Your task to perform on an android device: turn off location history Image 0: 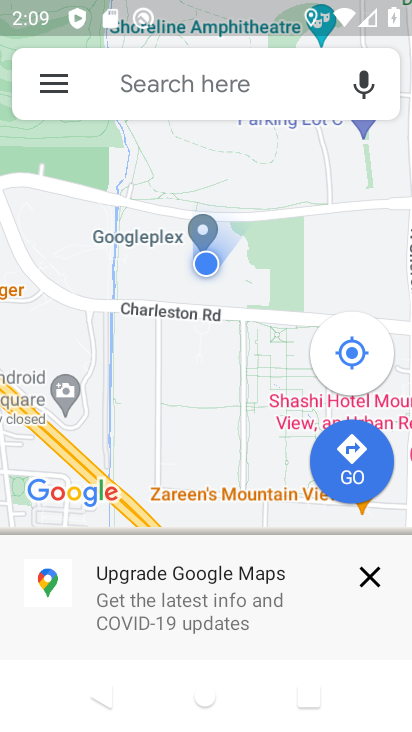
Step 0: press back button
Your task to perform on an android device: turn off location history Image 1: 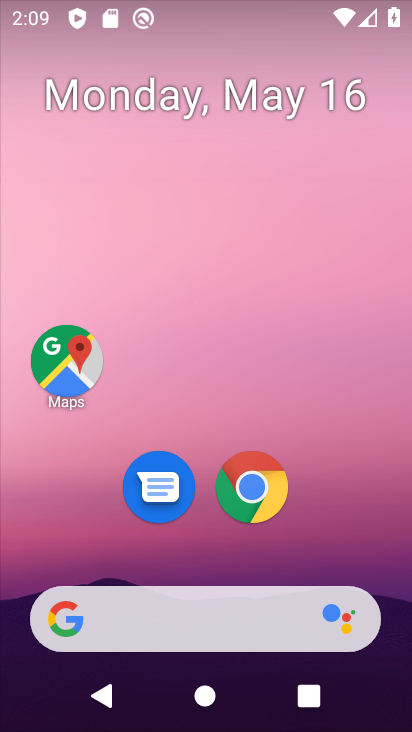
Step 1: drag from (302, 544) to (302, 53)
Your task to perform on an android device: turn off location history Image 2: 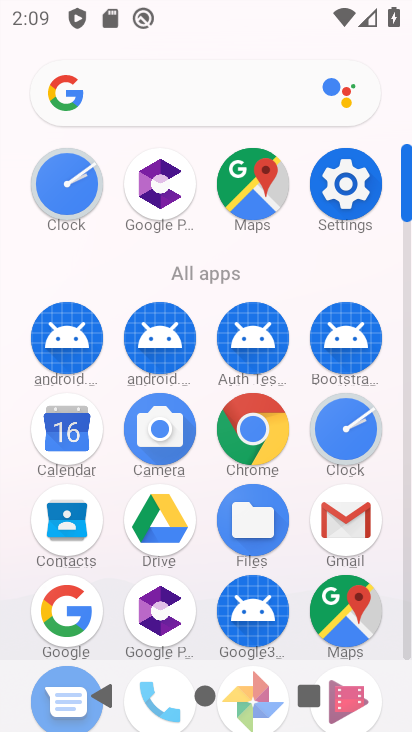
Step 2: click (345, 185)
Your task to perform on an android device: turn off location history Image 3: 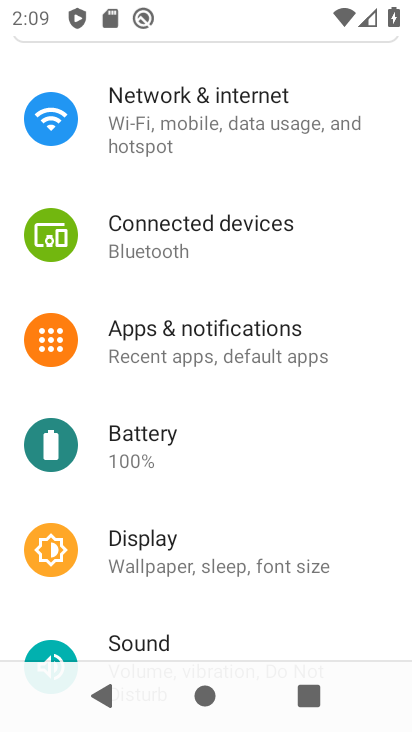
Step 3: drag from (203, 391) to (250, 293)
Your task to perform on an android device: turn off location history Image 4: 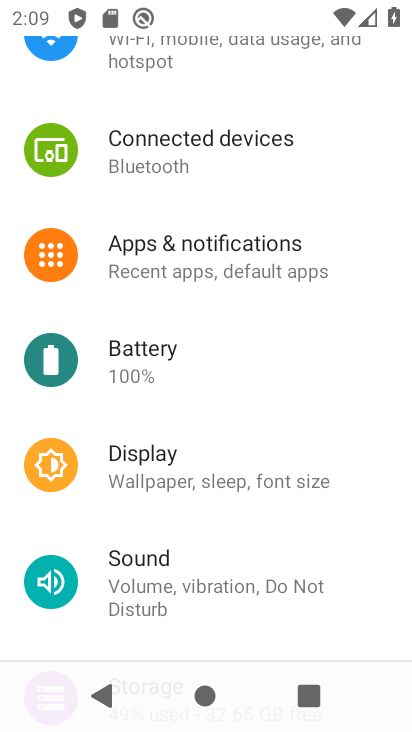
Step 4: drag from (189, 486) to (253, 400)
Your task to perform on an android device: turn off location history Image 5: 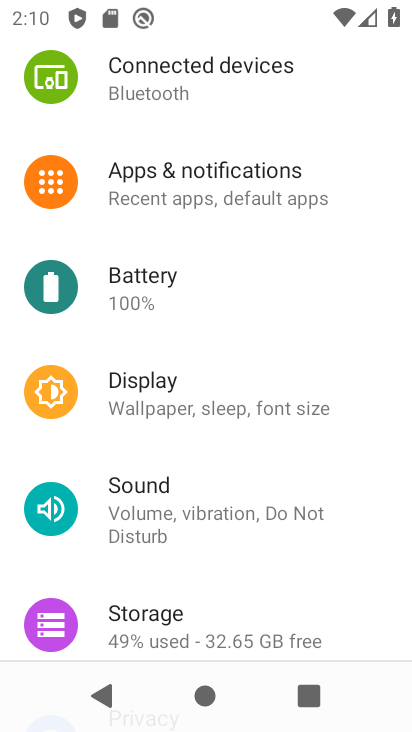
Step 5: drag from (201, 527) to (244, 444)
Your task to perform on an android device: turn off location history Image 6: 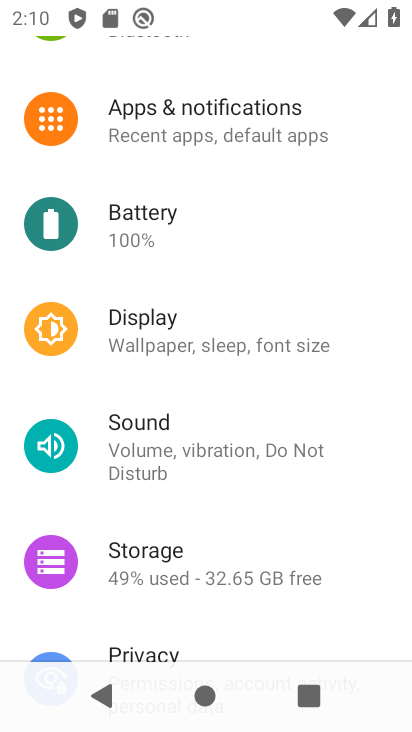
Step 6: drag from (169, 531) to (264, 398)
Your task to perform on an android device: turn off location history Image 7: 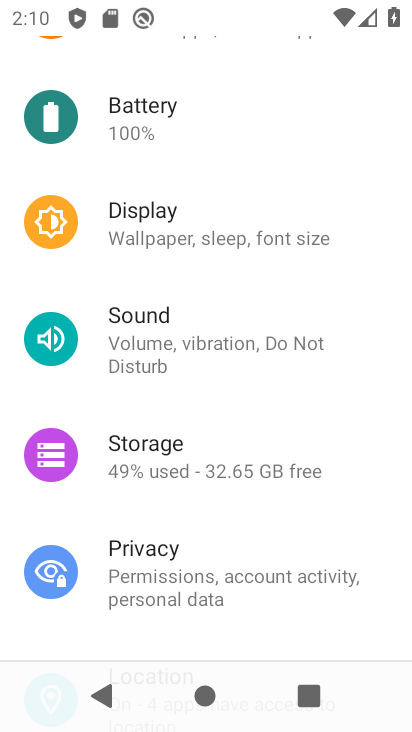
Step 7: drag from (184, 522) to (263, 408)
Your task to perform on an android device: turn off location history Image 8: 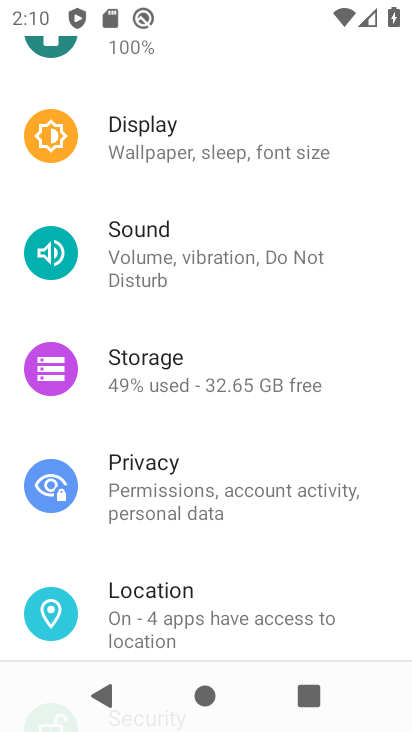
Step 8: drag from (187, 540) to (283, 412)
Your task to perform on an android device: turn off location history Image 9: 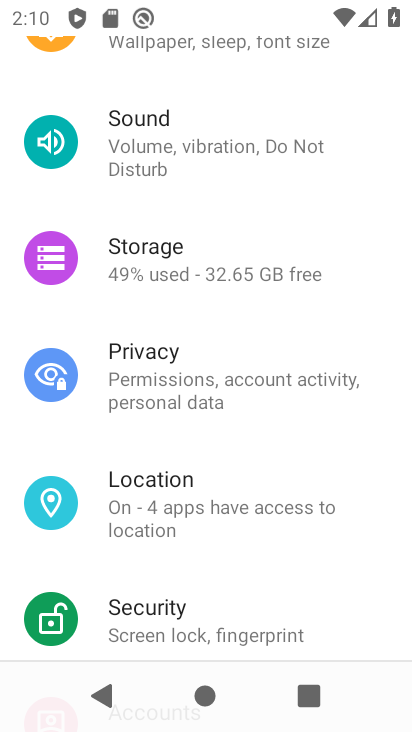
Step 9: click (136, 498)
Your task to perform on an android device: turn off location history Image 10: 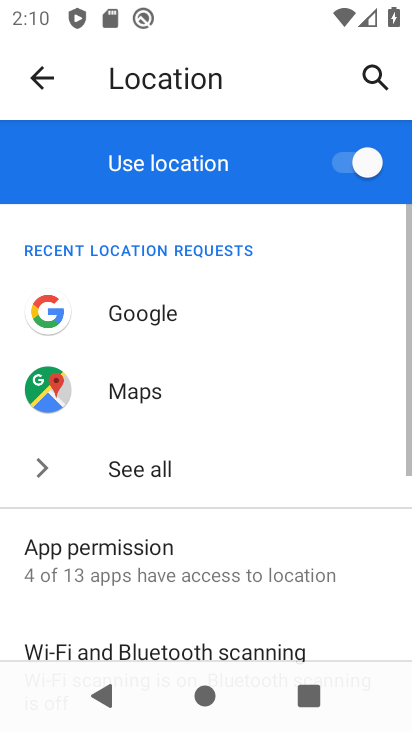
Step 10: drag from (158, 589) to (242, 453)
Your task to perform on an android device: turn off location history Image 11: 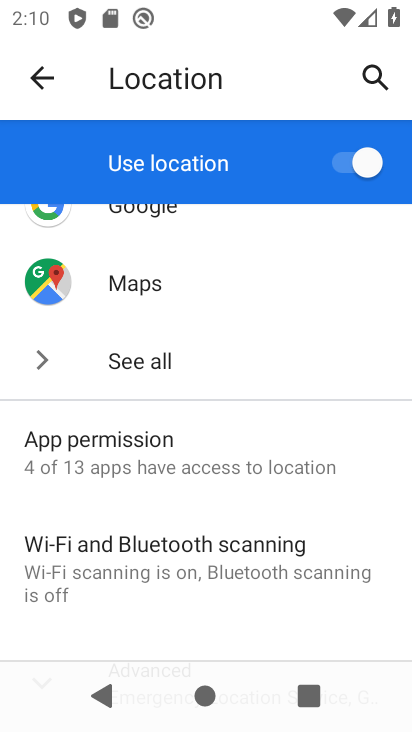
Step 11: drag from (178, 594) to (275, 411)
Your task to perform on an android device: turn off location history Image 12: 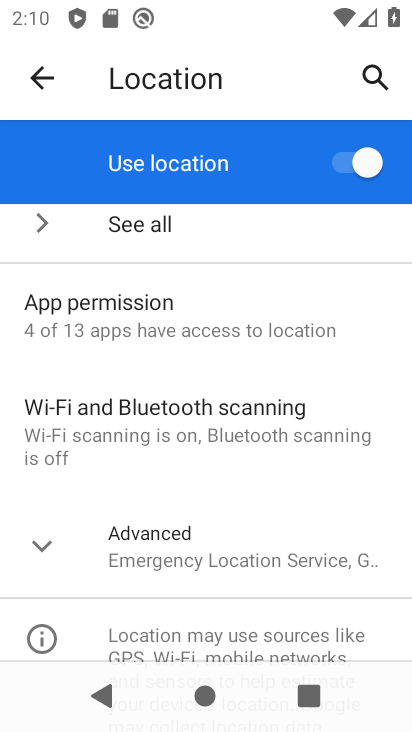
Step 12: click (217, 554)
Your task to perform on an android device: turn off location history Image 13: 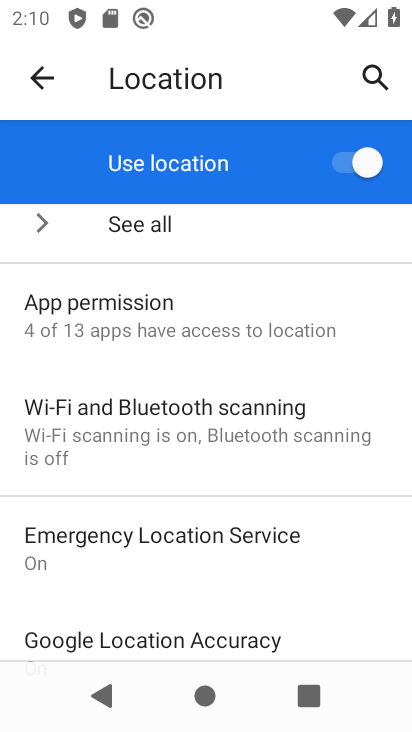
Step 13: drag from (192, 598) to (223, 524)
Your task to perform on an android device: turn off location history Image 14: 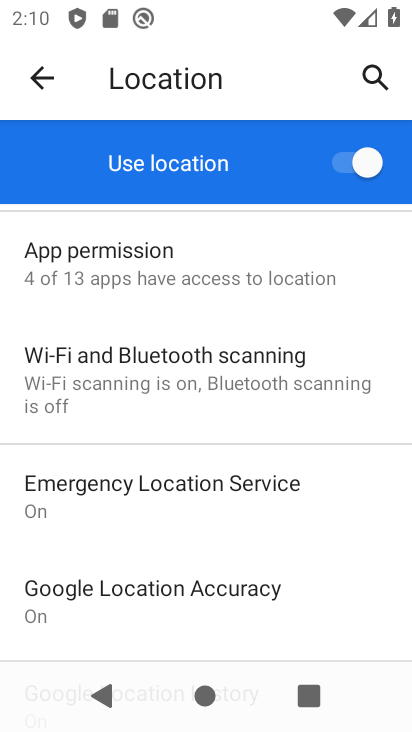
Step 14: drag from (148, 574) to (247, 472)
Your task to perform on an android device: turn off location history Image 15: 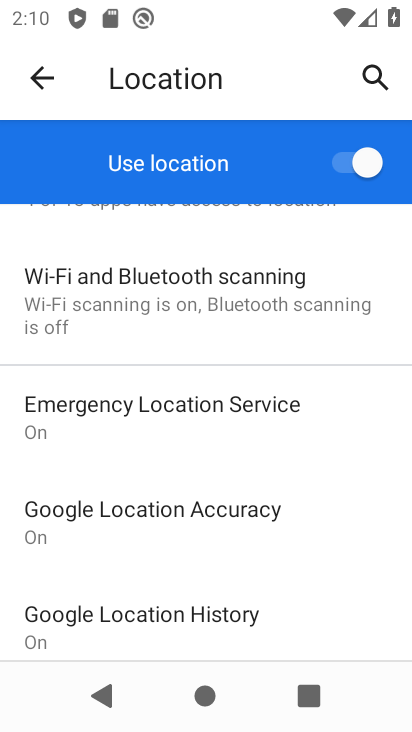
Step 15: drag from (179, 577) to (257, 487)
Your task to perform on an android device: turn off location history Image 16: 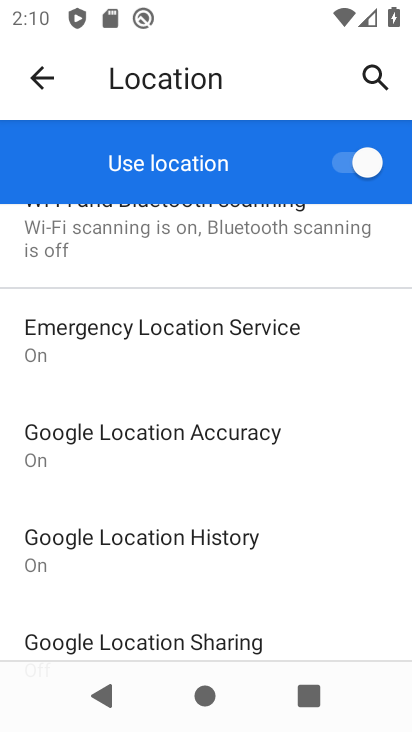
Step 16: click (159, 545)
Your task to perform on an android device: turn off location history Image 17: 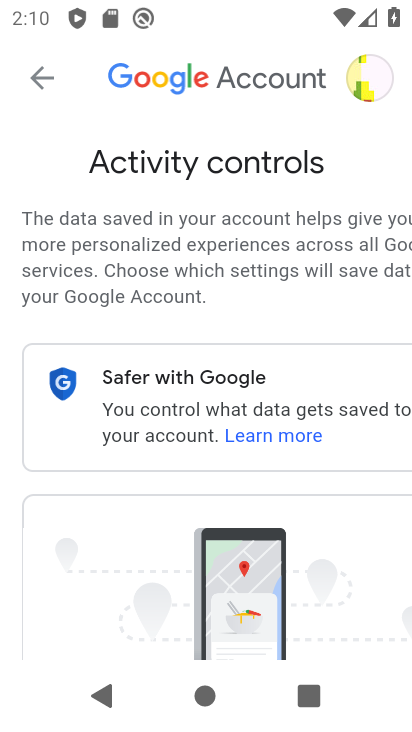
Step 17: drag from (303, 550) to (337, 321)
Your task to perform on an android device: turn off location history Image 18: 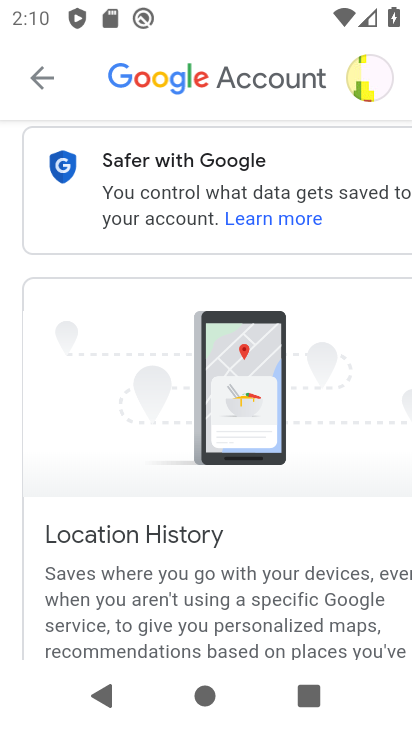
Step 18: drag from (222, 551) to (272, 361)
Your task to perform on an android device: turn off location history Image 19: 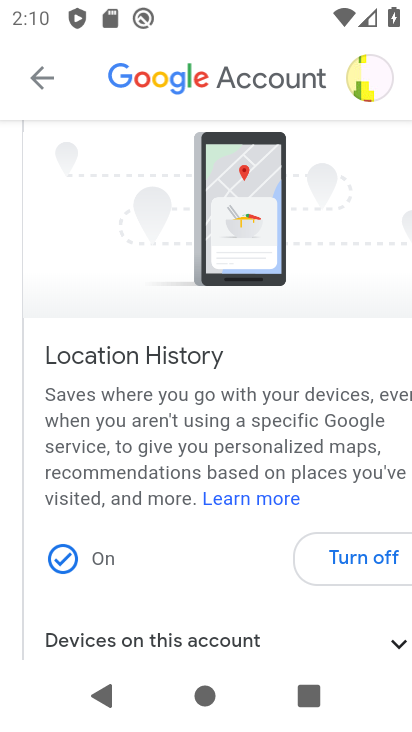
Step 19: click (358, 560)
Your task to perform on an android device: turn off location history Image 20: 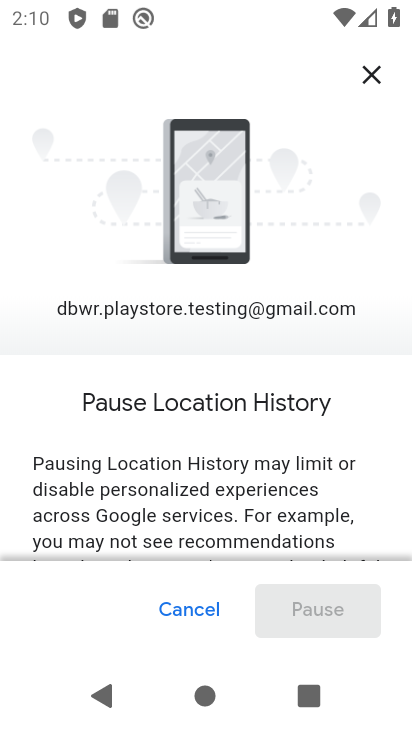
Step 20: drag from (250, 504) to (344, 340)
Your task to perform on an android device: turn off location history Image 21: 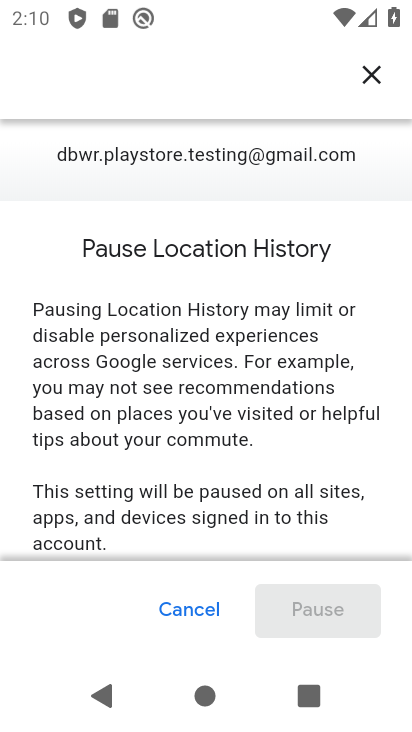
Step 21: drag from (276, 478) to (312, 342)
Your task to perform on an android device: turn off location history Image 22: 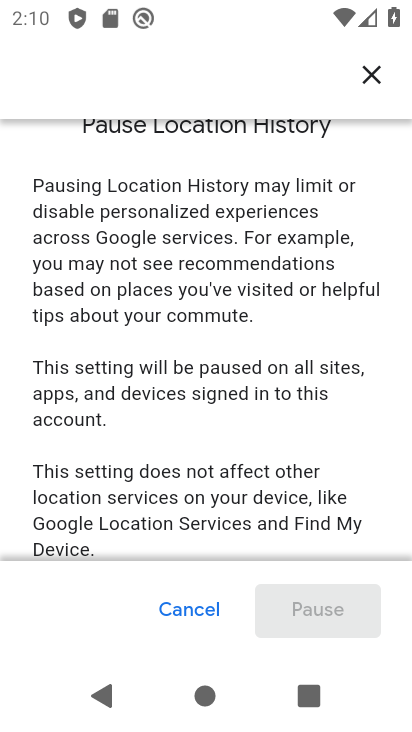
Step 22: drag from (260, 478) to (289, 343)
Your task to perform on an android device: turn off location history Image 23: 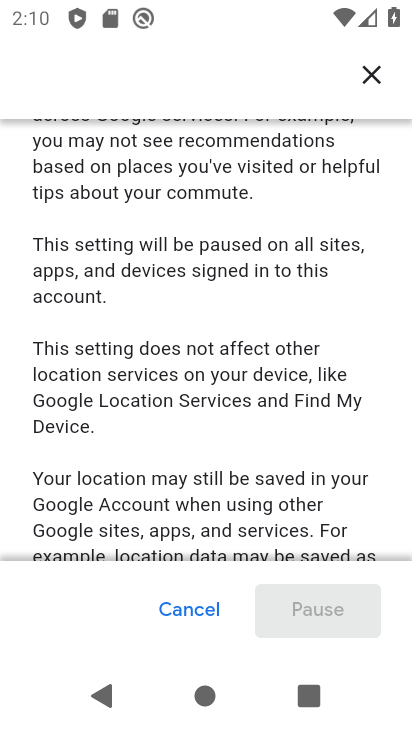
Step 23: drag from (250, 506) to (300, 380)
Your task to perform on an android device: turn off location history Image 24: 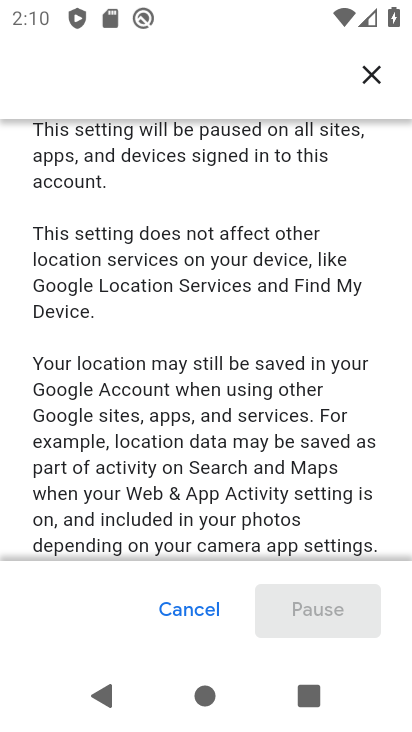
Step 24: drag from (269, 507) to (321, 383)
Your task to perform on an android device: turn off location history Image 25: 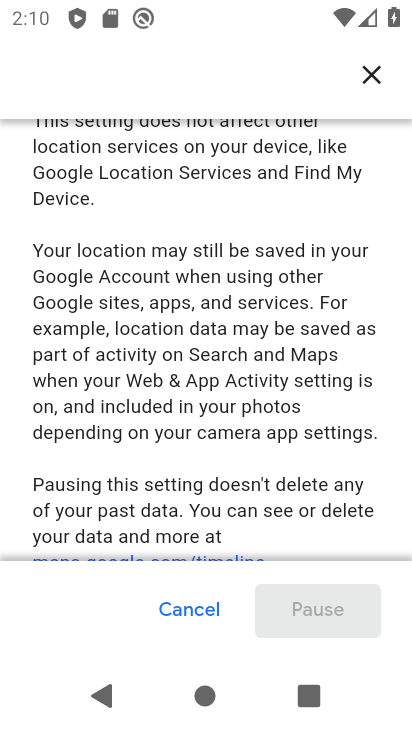
Step 25: drag from (241, 525) to (355, 357)
Your task to perform on an android device: turn off location history Image 26: 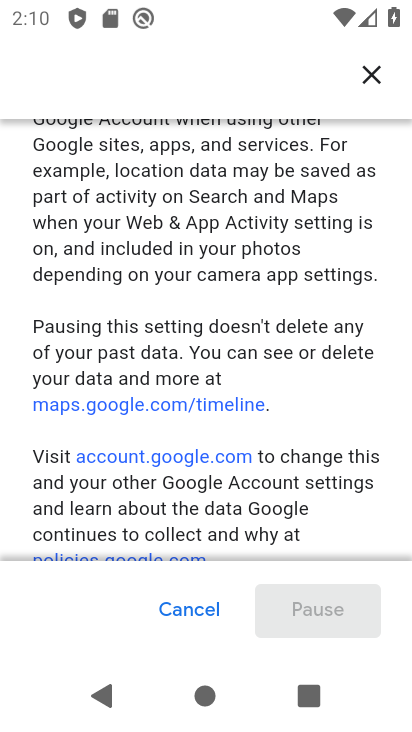
Step 26: drag from (259, 516) to (359, 371)
Your task to perform on an android device: turn off location history Image 27: 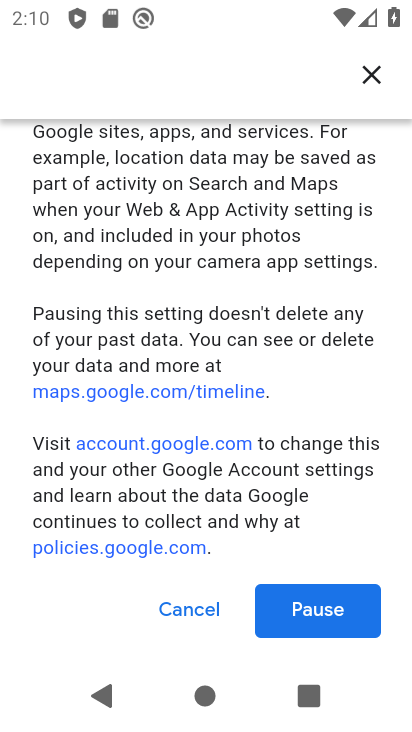
Step 27: click (306, 617)
Your task to perform on an android device: turn off location history Image 28: 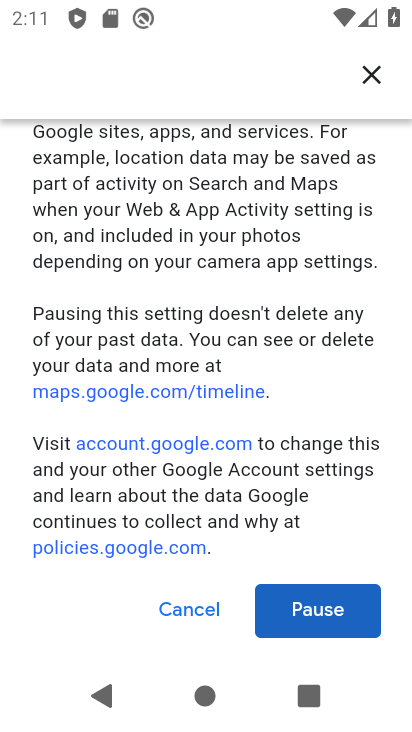
Step 28: click (306, 617)
Your task to perform on an android device: turn off location history Image 29: 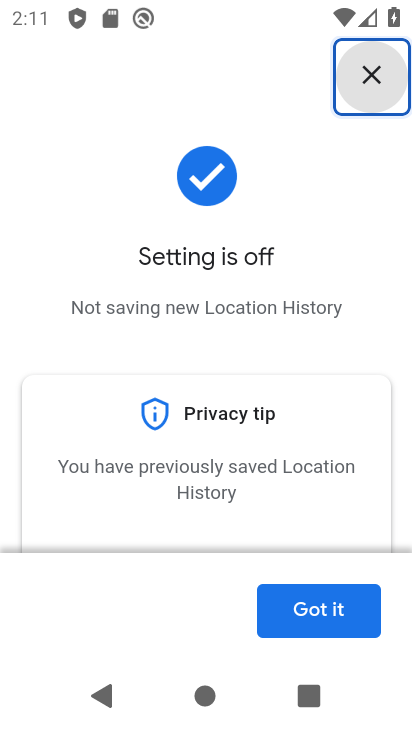
Step 29: click (306, 616)
Your task to perform on an android device: turn off location history Image 30: 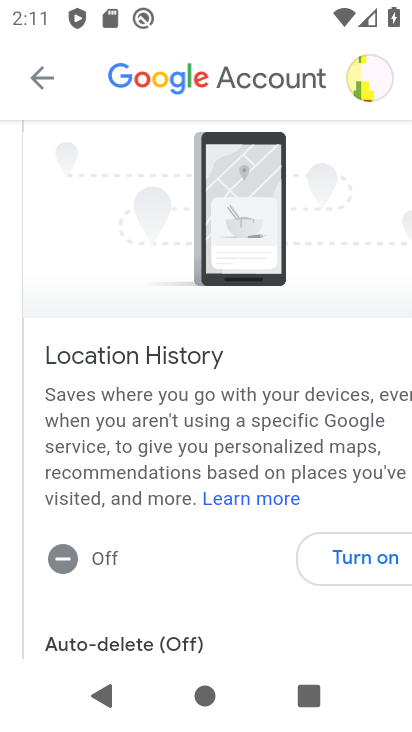
Step 30: task complete